Your task to perform on an android device: check the backup settings in the google photos Image 0: 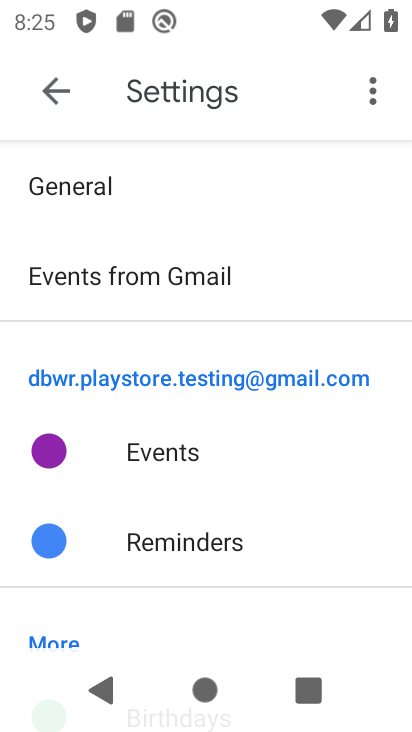
Step 0: press home button
Your task to perform on an android device: check the backup settings in the google photos Image 1: 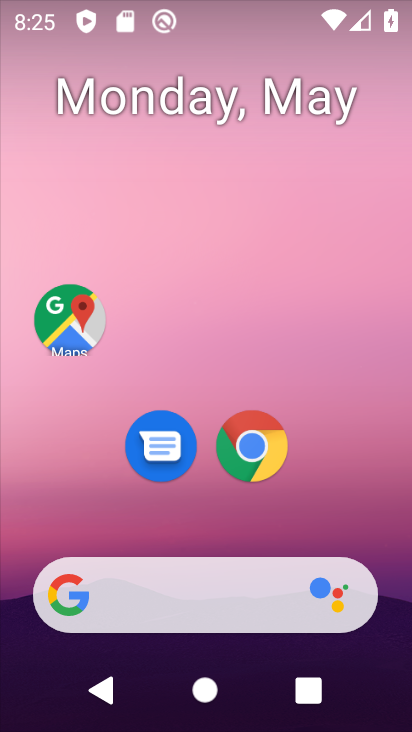
Step 1: drag from (196, 535) to (218, 93)
Your task to perform on an android device: check the backup settings in the google photos Image 2: 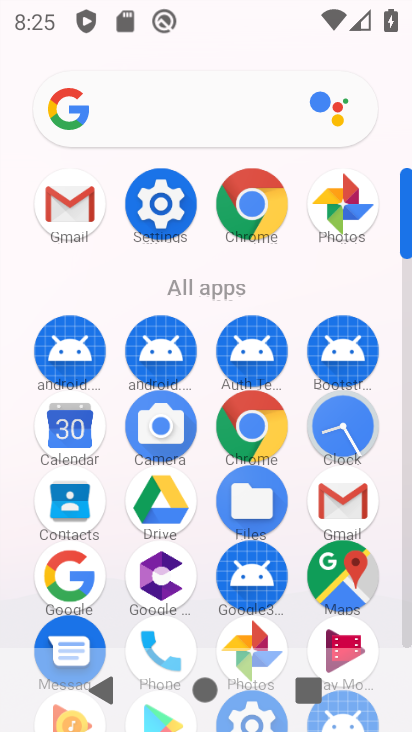
Step 2: click (339, 192)
Your task to perform on an android device: check the backup settings in the google photos Image 3: 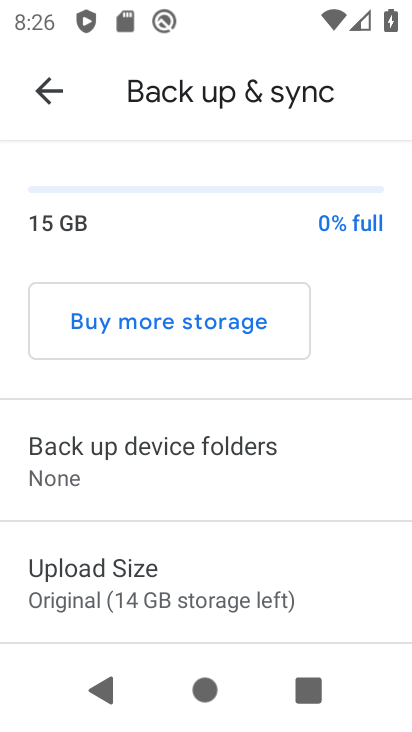
Step 3: task complete